Your task to perform on an android device: Open battery settings Image 0: 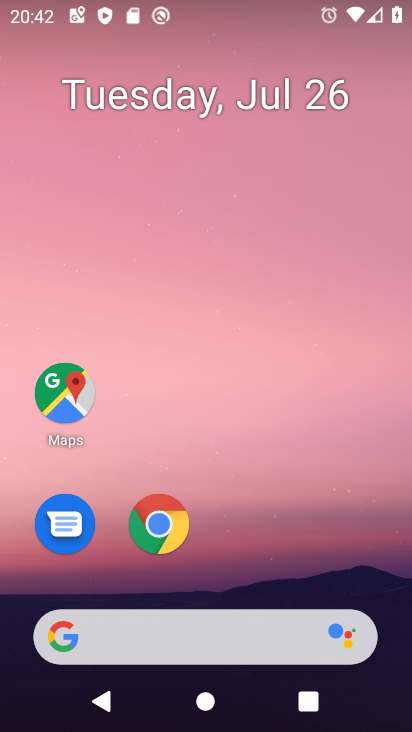
Step 0: drag from (264, 577) to (267, 33)
Your task to perform on an android device: Open battery settings Image 1: 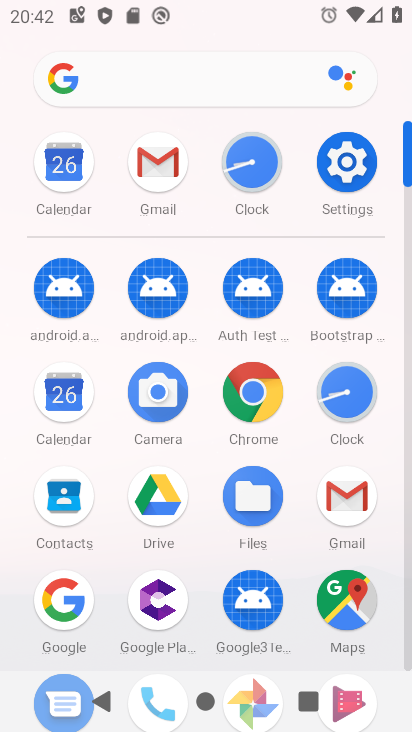
Step 1: click (352, 148)
Your task to perform on an android device: Open battery settings Image 2: 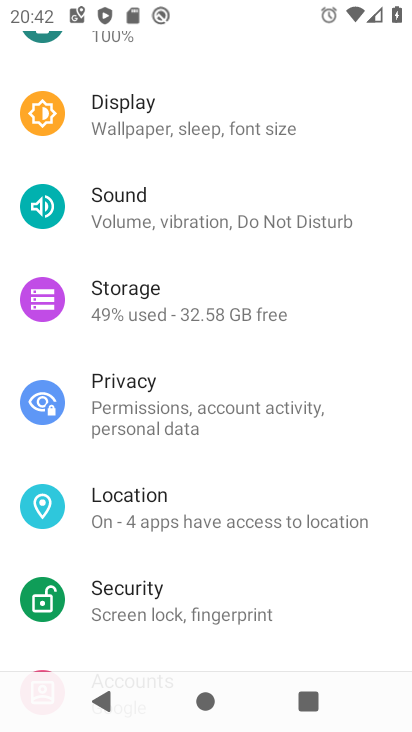
Step 2: drag from (220, 181) to (244, 544)
Your task to perform on an android device: Open battery settings Image 3: 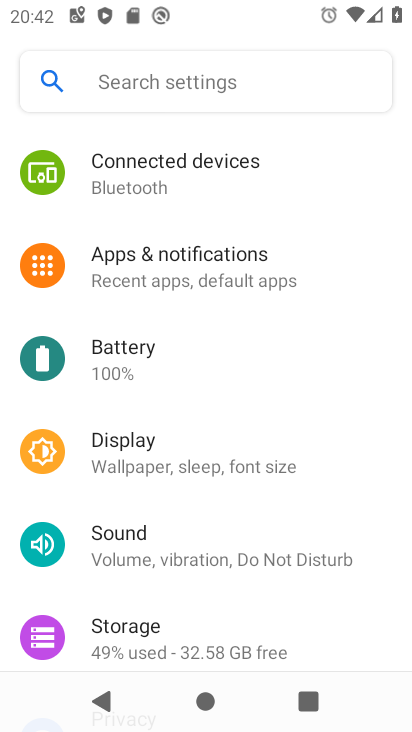
Step 3: click (182, 352)
Your task to perform on an android device: Open battery settings Image 4: 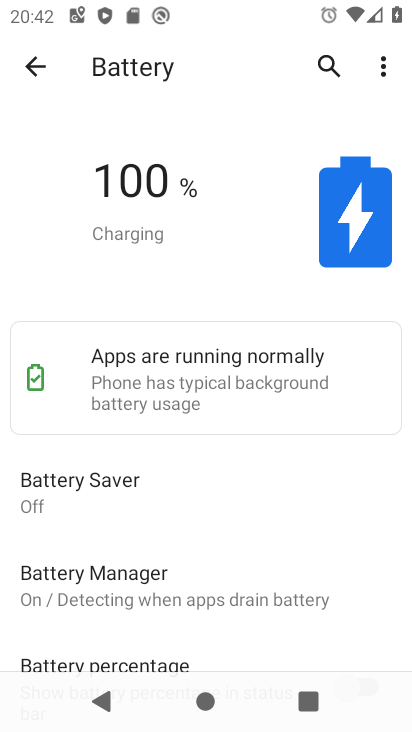
Step 4: task complete